Your task to perform on an android device: open app "Google Home" (install if not already installed) Image 0: 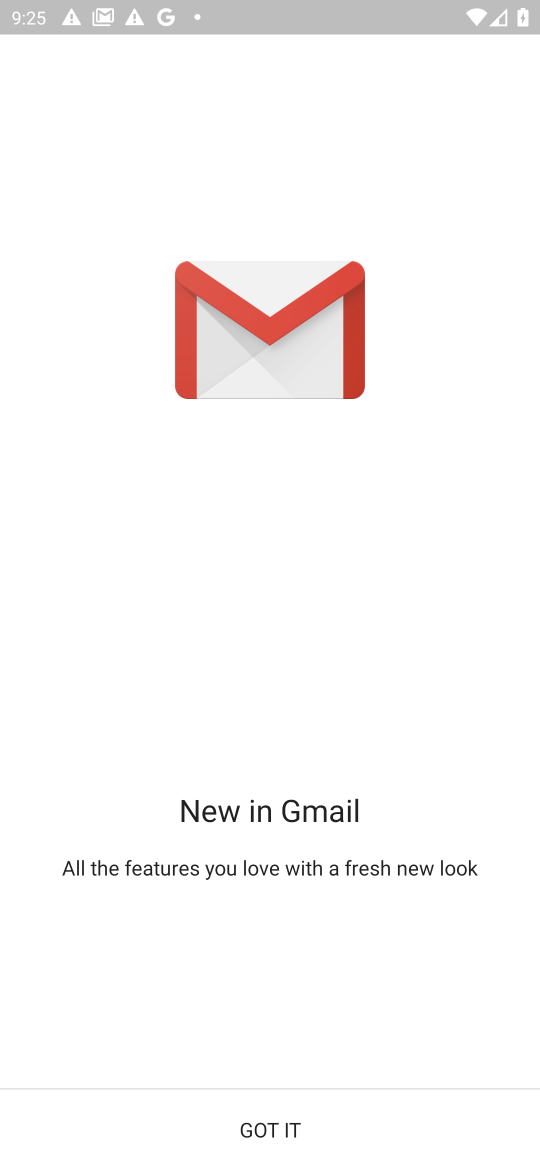
Step 0: press home button
Your task to perform on an android device: open app "Google Home" (install if not already installed) Image 1: 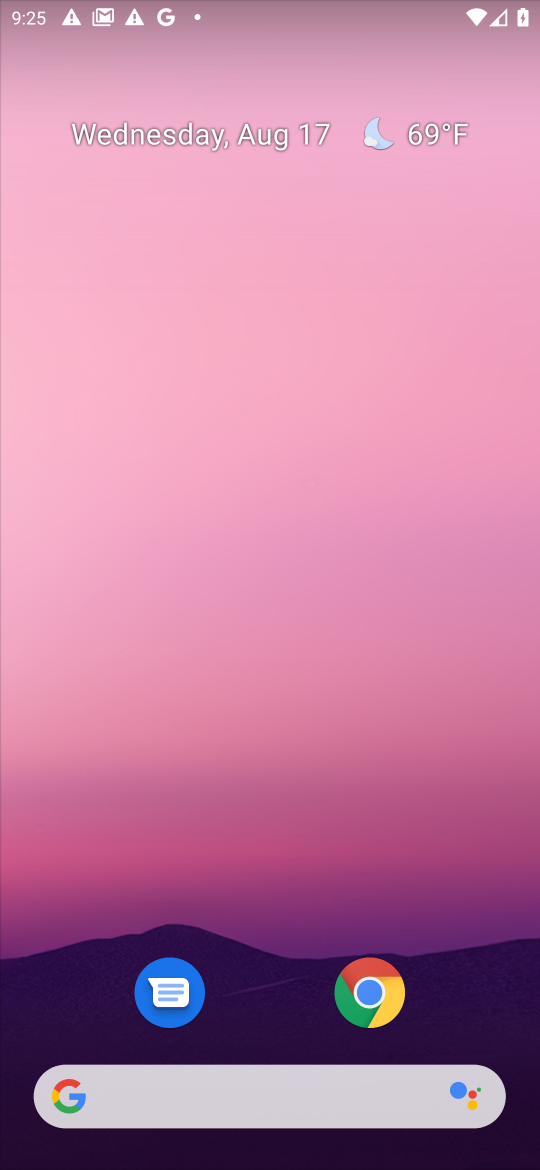
Step 1: drag from (493, 1007) to (229, 17)
Your task to perform on an android device: open app "Google Home" (install if not already installed) Image 2: 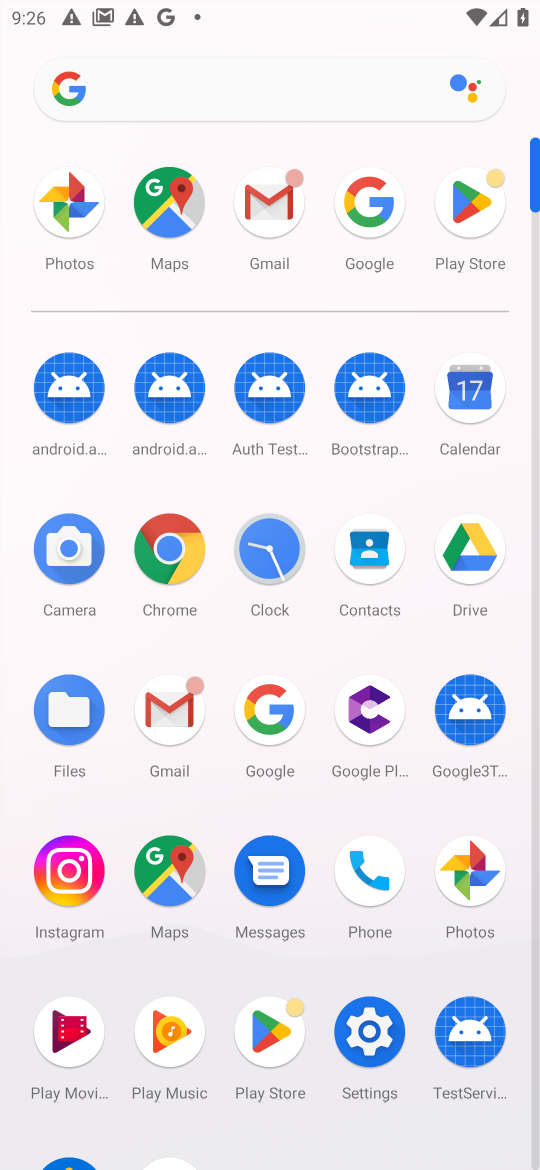
Step 2: click (281, 1034)
Your task to perform on an android device: open app "Google Home" (install if not already installed) Image 3: 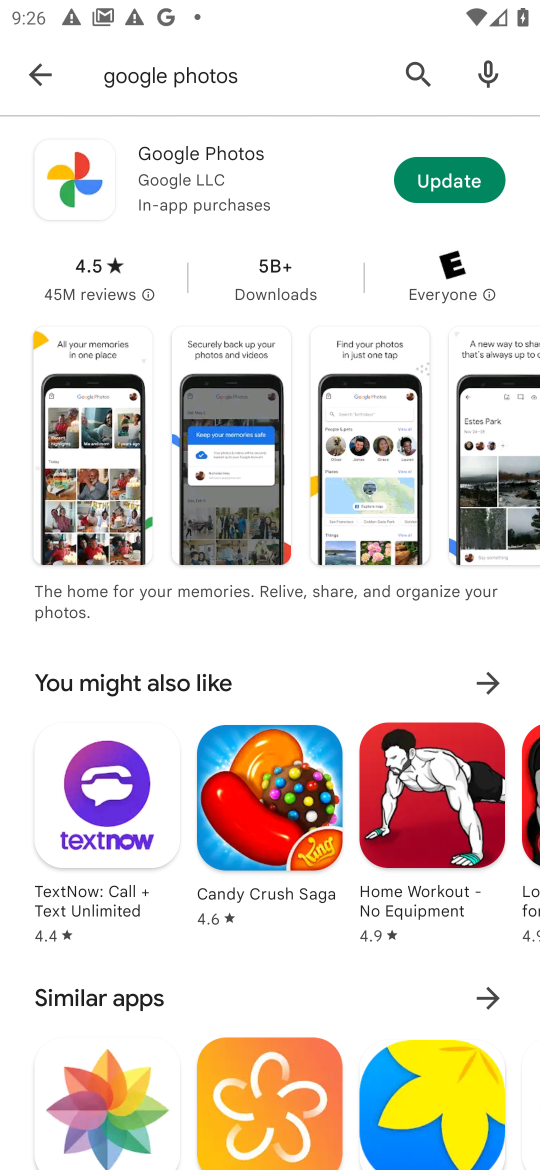
Step 3: press back button
Your task to perform on an android device: open app "Google Home" (install if not already installed) Image 4: 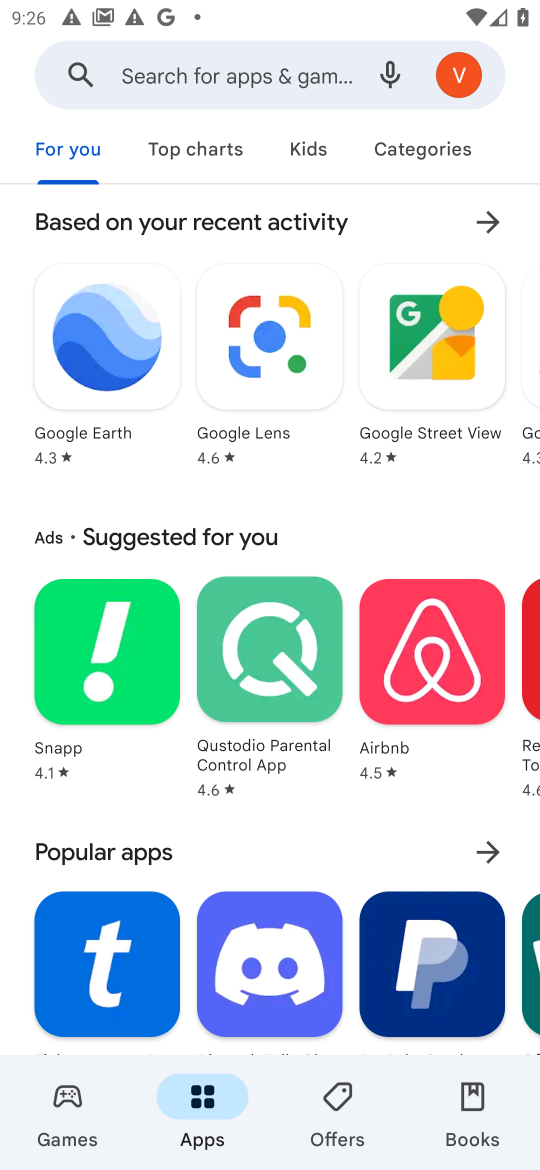
Step 4: click (159, 69)
Your task to perform on an android device: open app "Google Home" (install if not already installed) Image 5: 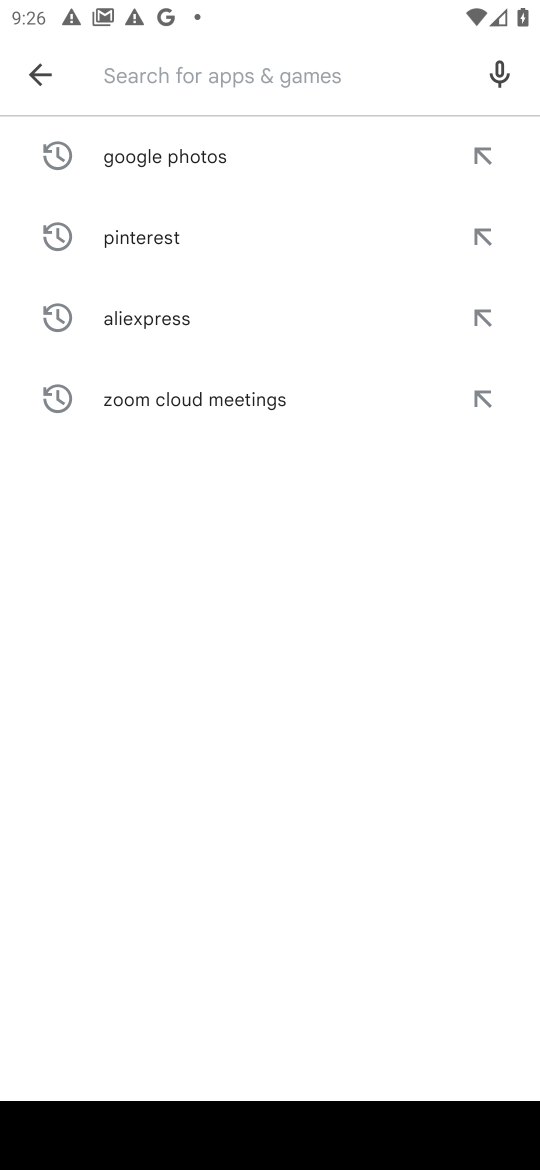
Step 5: type "Google Home"
Your task to perform on an android device: open app "Google Home" (install if not already installed) Image 6: 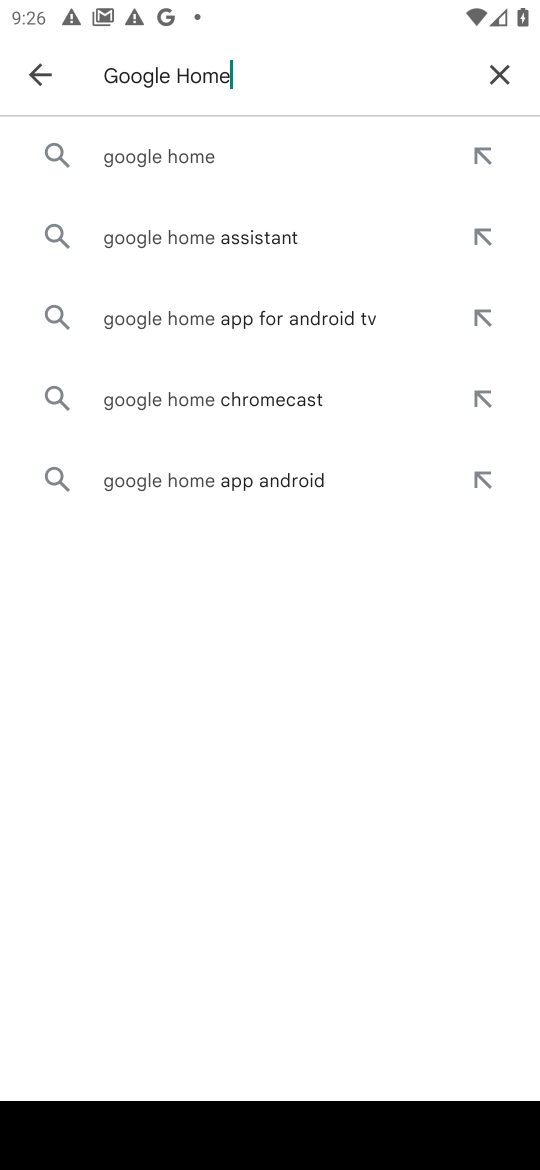
Step 6: click (222, 166)
Your task to perform on an android device: open app "Google Home" (install if not already installed) Image 7: 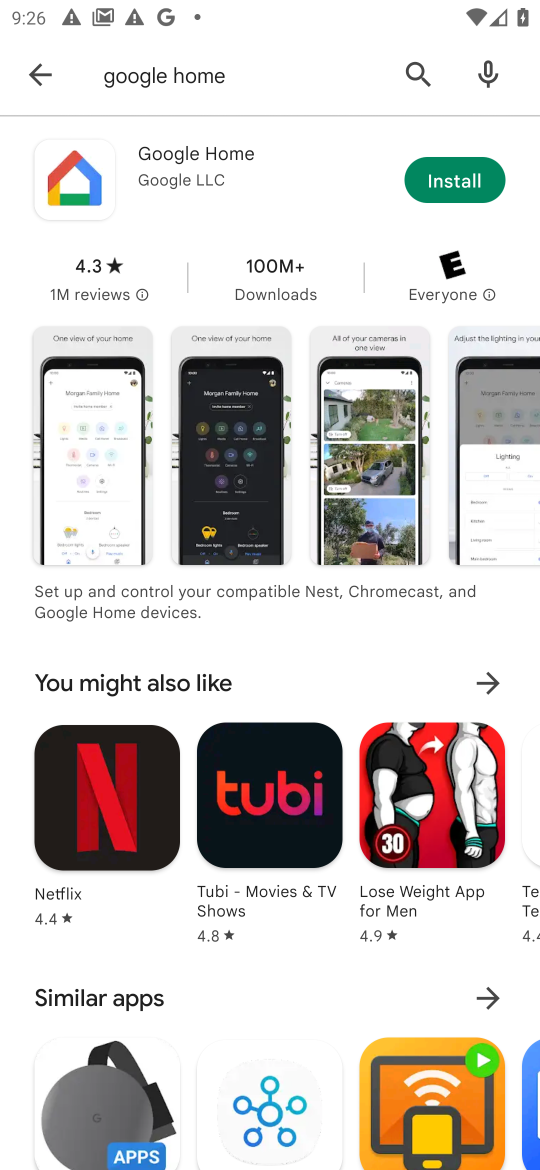
Step 7: task complete